Your task to perform on an android device: Open the Play Movies app and select the watchlist tab. Image 0: 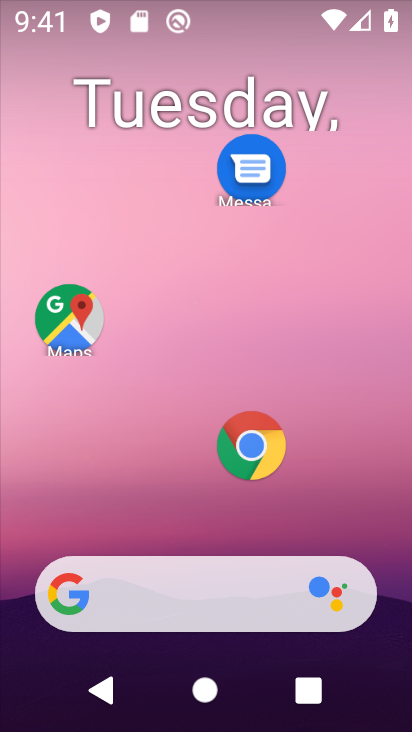
Step 0: drag from (202, 546) to (273, 6)
Your task to perform on an android device: Open the Play Movies app and select the watchlist tab. Image 1: 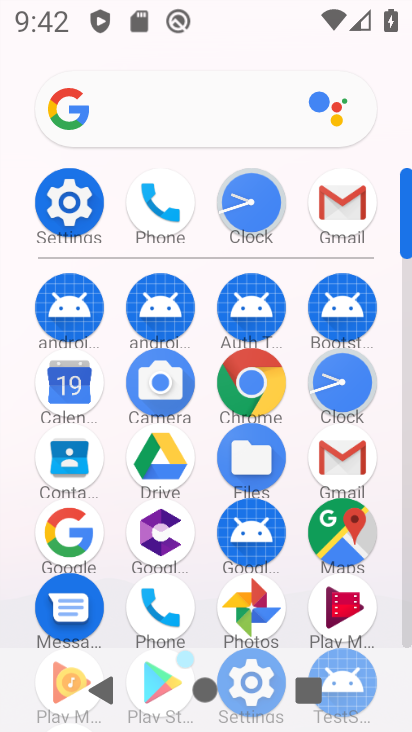
Step 1: click (352, 610)
Your task to perform on an android device: Open the Play Movies app and select the watchlist tab. Image 2: 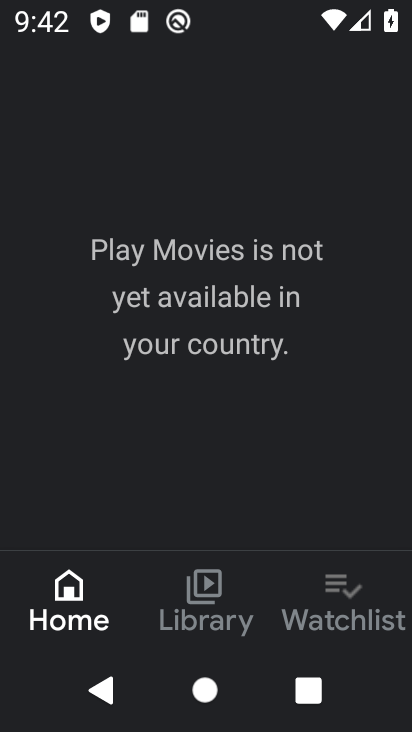
Step 2: click (351, 601)
Your task to perform on an android device: Open the Play Movies app and select the watchlist tab. Image 3: 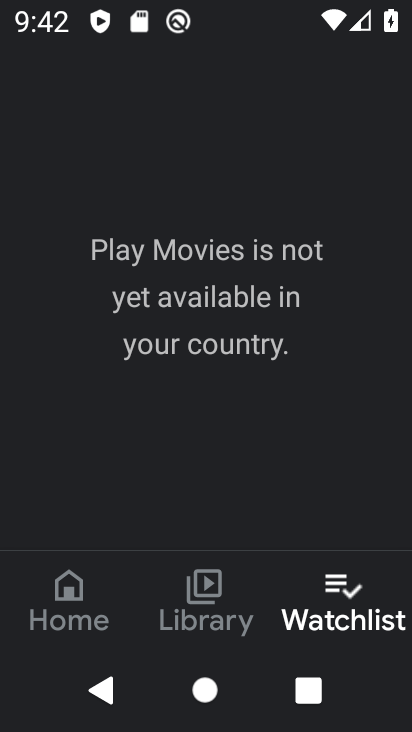
Step 3: task complete